Your task to perform on an android device: turn smart compose on in the gmail app Image 0: 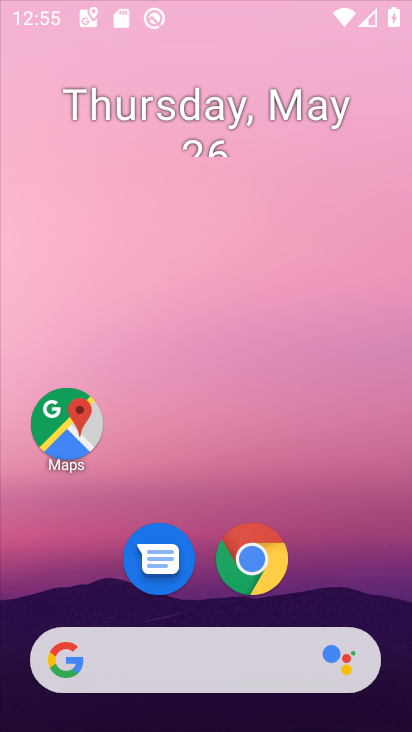
Step 0: press home button
Your task to perform on an android device: turn smart compose on in the gmail app Image 1: 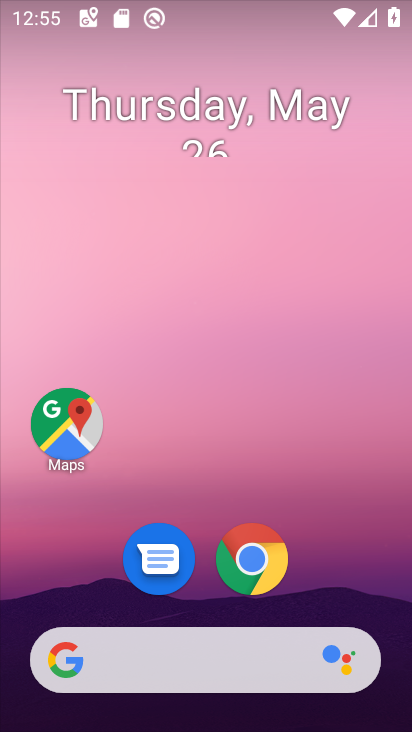
Step 1: drag from (306, 602) to (311, 79)
Your task to perform on an android device: turn smart compose on in the gmail app Image 2: 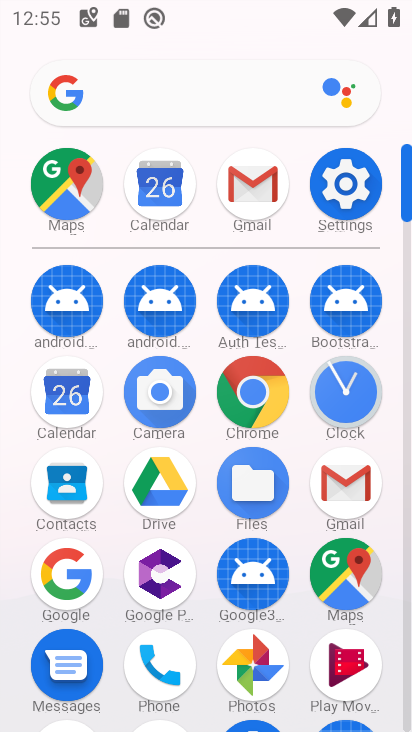
Step 2: click (263, 182)
Your task to perform on an android device: turn smart compose on in the gmail app Image 3: 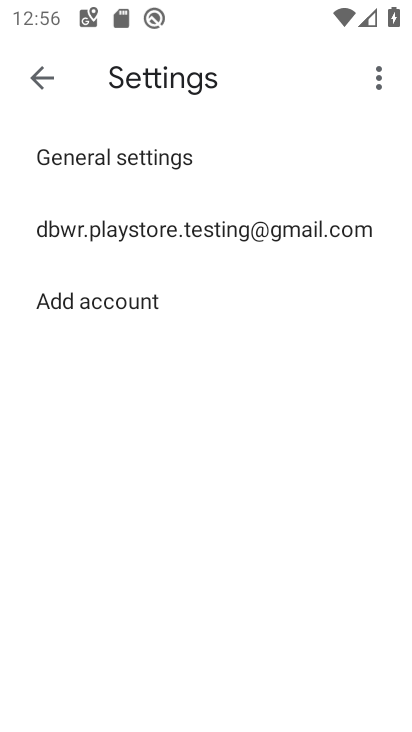
Step 3: click (111, 233)
Your task to perform on an android device: turn smart compose on in the gmail app Image 4: 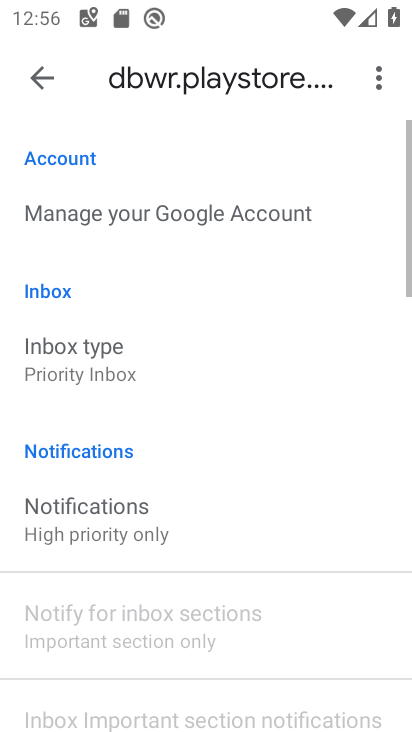
Step 4: task complete